Your task to perform on an android device: clear history in the chrome app Image 0: 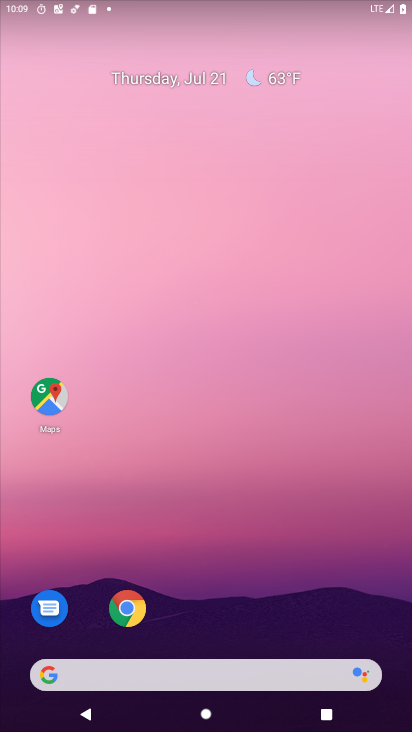
Step 0: drag from (239, 677) to (232, 189)
Your task to perform on an android device: clear history in the chrome app Image 1: 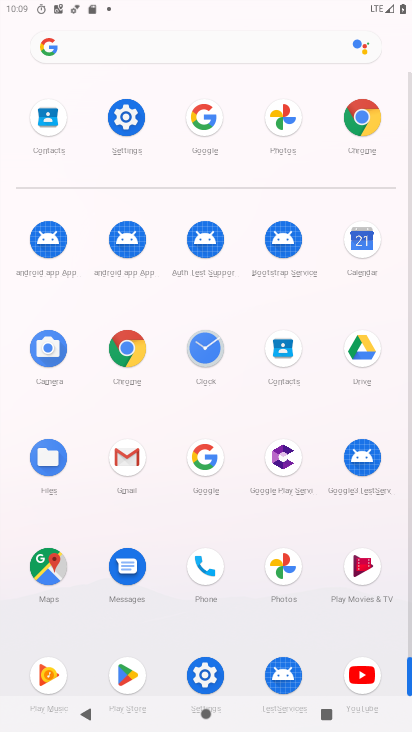
Step 1: click (368, 131)
Your task to perform on an android device: clear history in the chrome app Image 2: 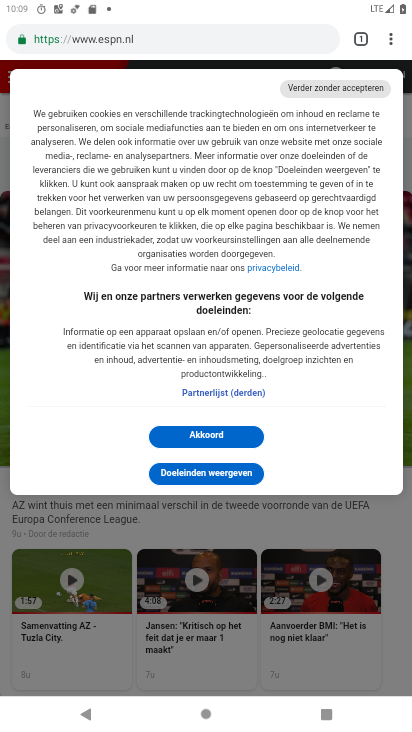
Step 2: click (394, 40)
Your task to perform on an android device: clear history in the chrome app Image 3: 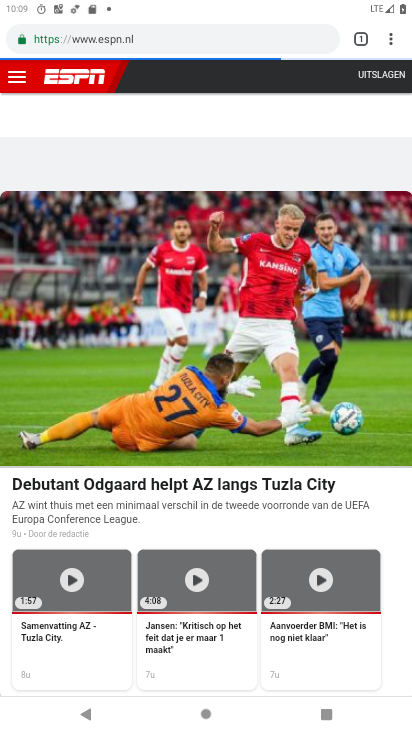
Step 3: click (388, 43)
Your task to perform on an android device: clear history in the chrome app Image 4: 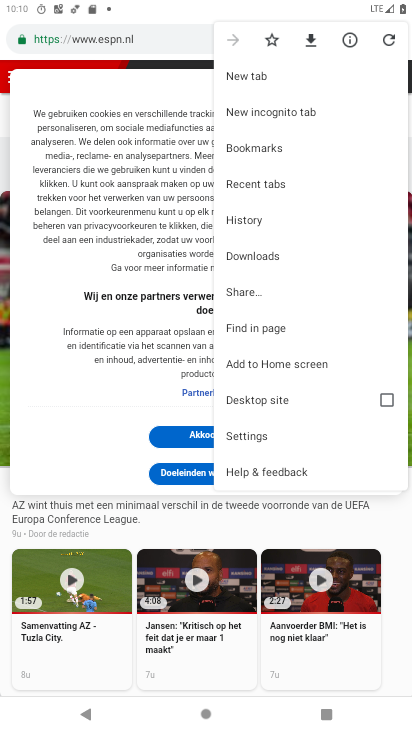
Step 4: click (262, 215)
Your task to perform on an android device: clear history in the chrome app Image 5: 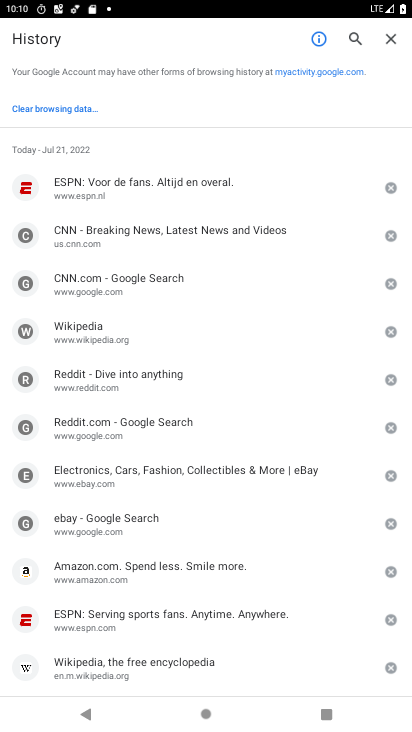
Step 5: click (69, 104)
Your task to perform on an android device: clear history in the chrome app Image 6: 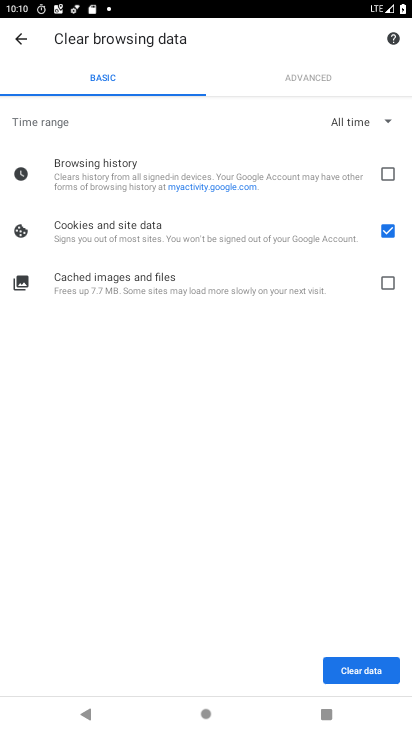
Step 6: click (392, 170)
Your task to perform on an android device: clear history in the chrome app Image 7: 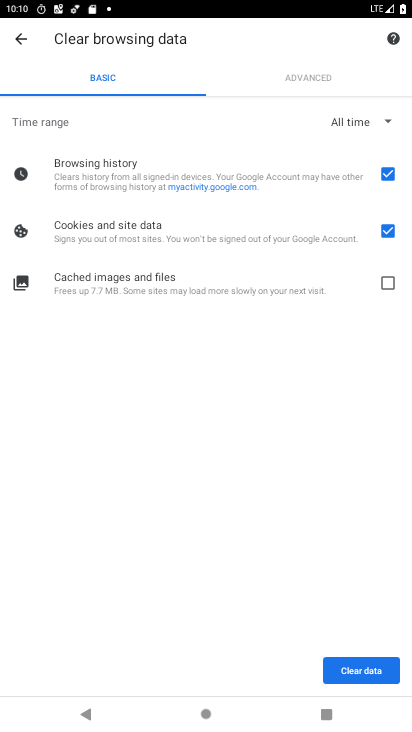
Step 7: click (385, 233)
Your task to perform on an android device: clear history in the chrome app Image 8: 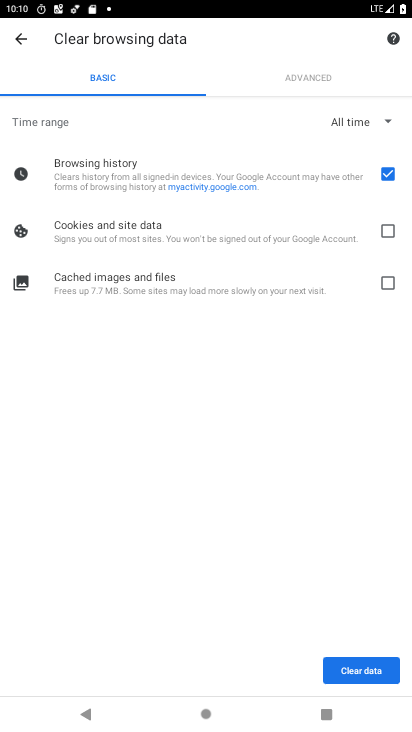
Step 8: click (367, 672)
Your task to perform on an android device: clear history in the chrome app Image 9: 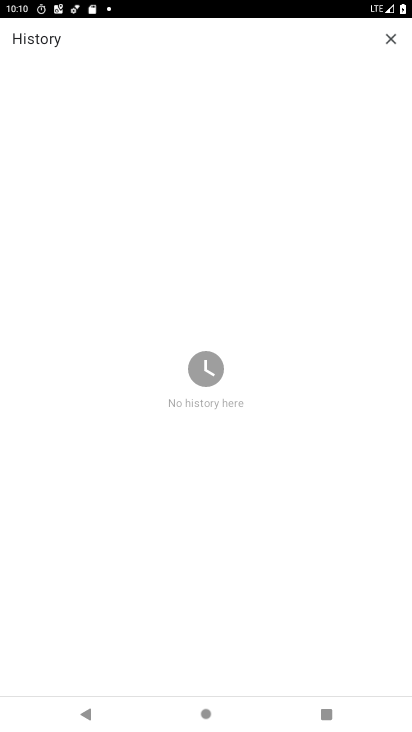
Step 9: task complete